Your task to perform on an android device: open app "Spotify" (install if not already installed) Image 0: 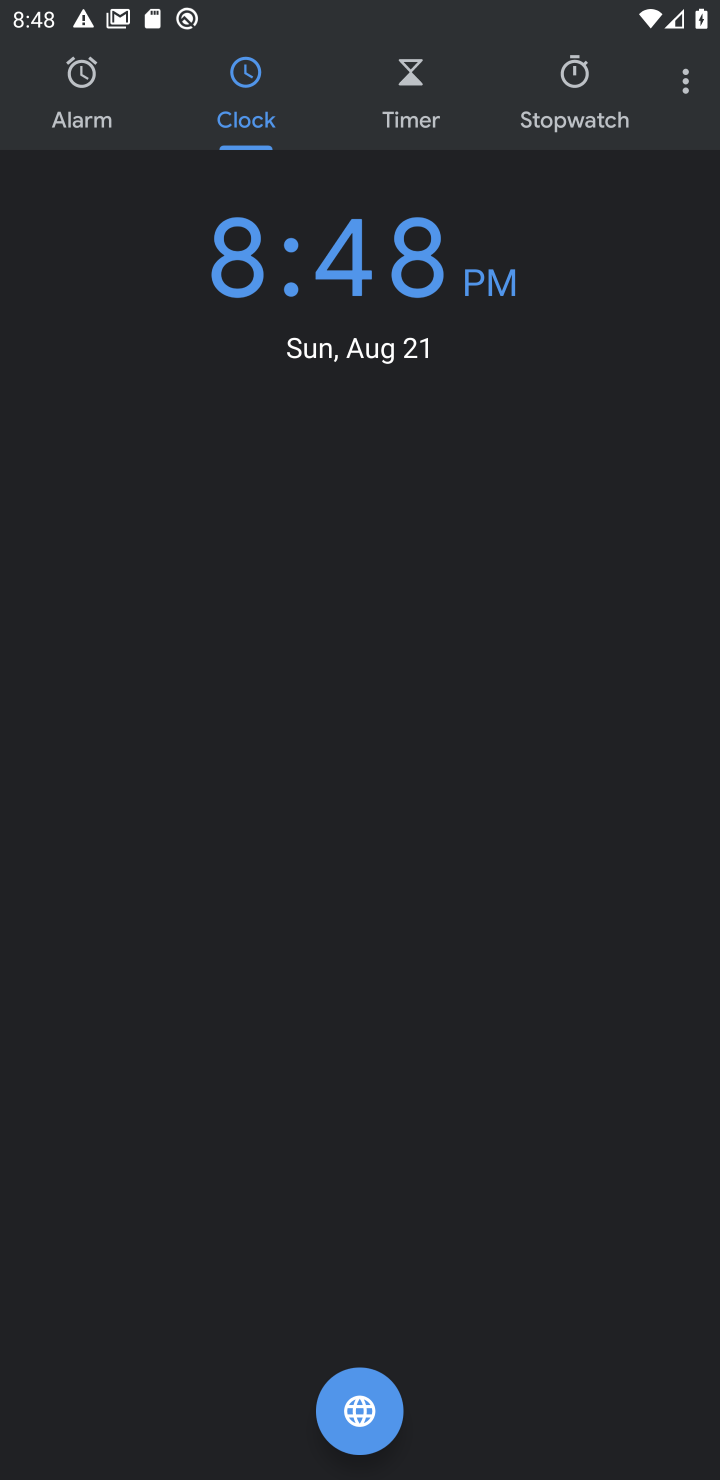
Step 0: press home button
Your task to perform on an android device: open app "Spotify" (install if not already installed) Image 1: 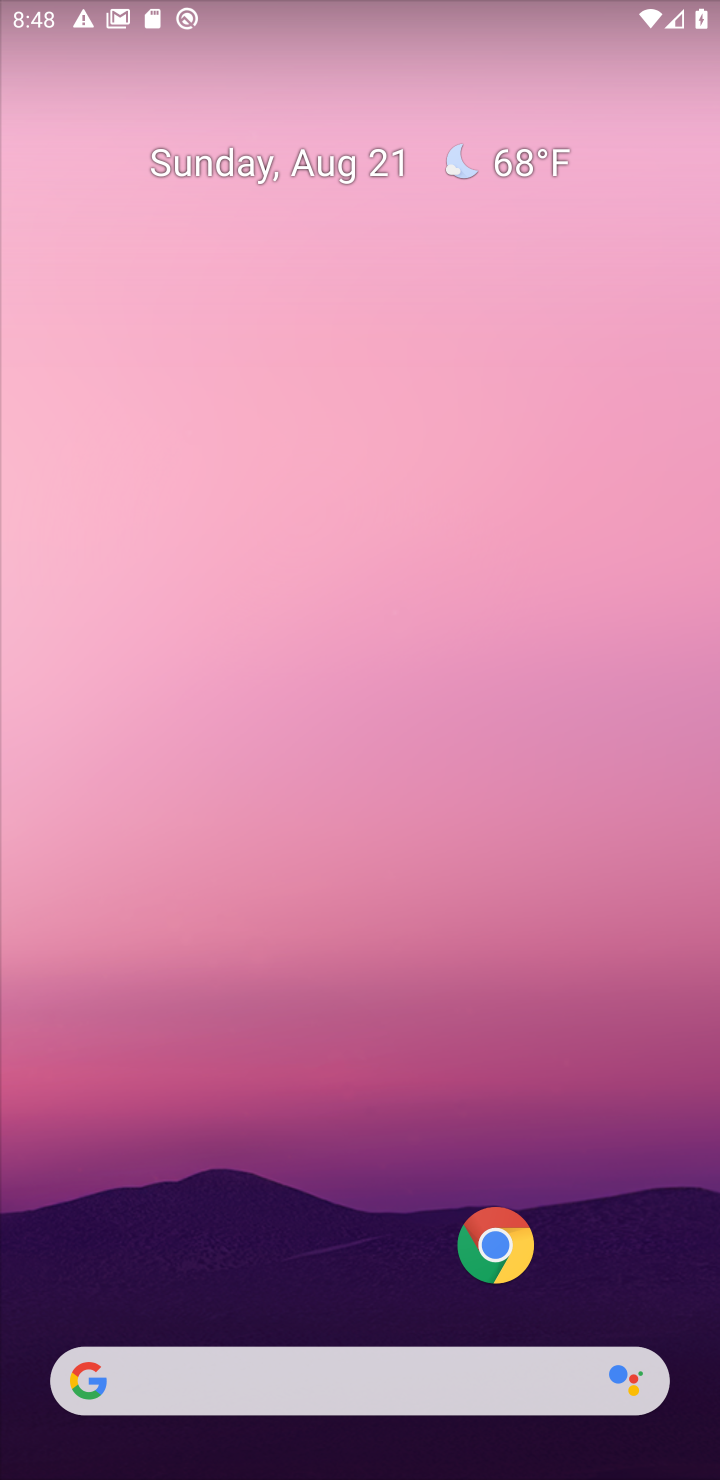
Step 1: drag from (338, 1303) to (365, 201)
Your task to perform on an android device: open app "Spotify" (install if not already installed) Image 2: 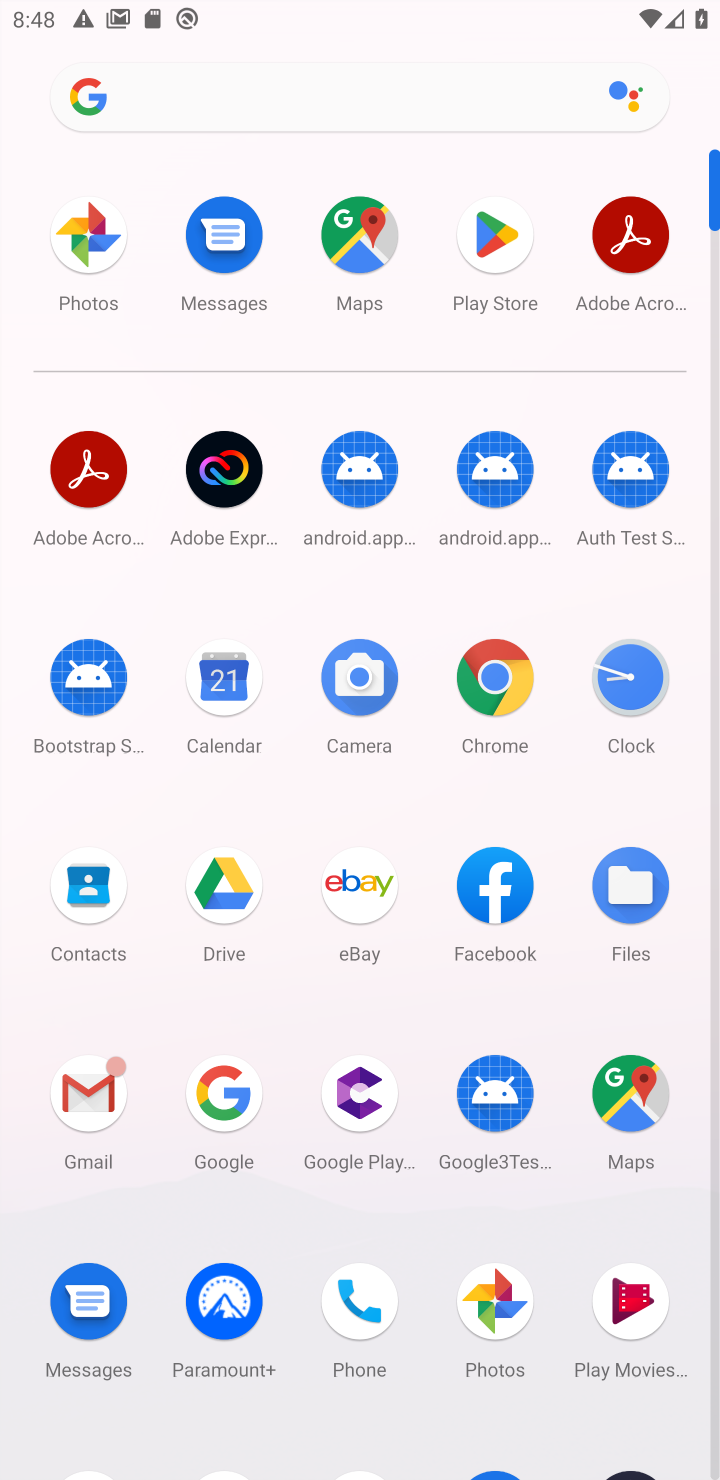
Step 2: click (480, 247)
Your task to perform on an android device: open app "Spotify" (install if not already installed) Image 3: 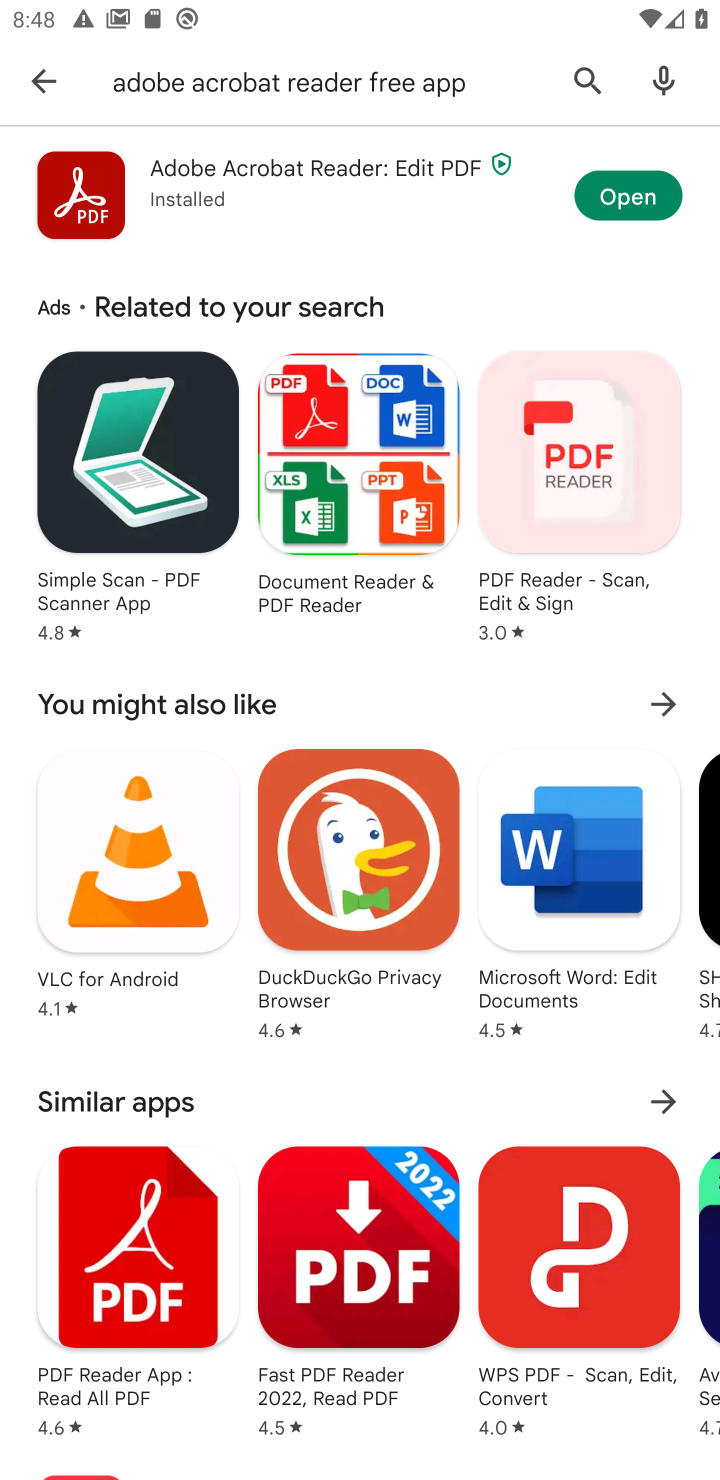
Step 3: click (30, 81)
Your task to perform on an android device: open app "Spotify" (install if not already installed) Image 4: 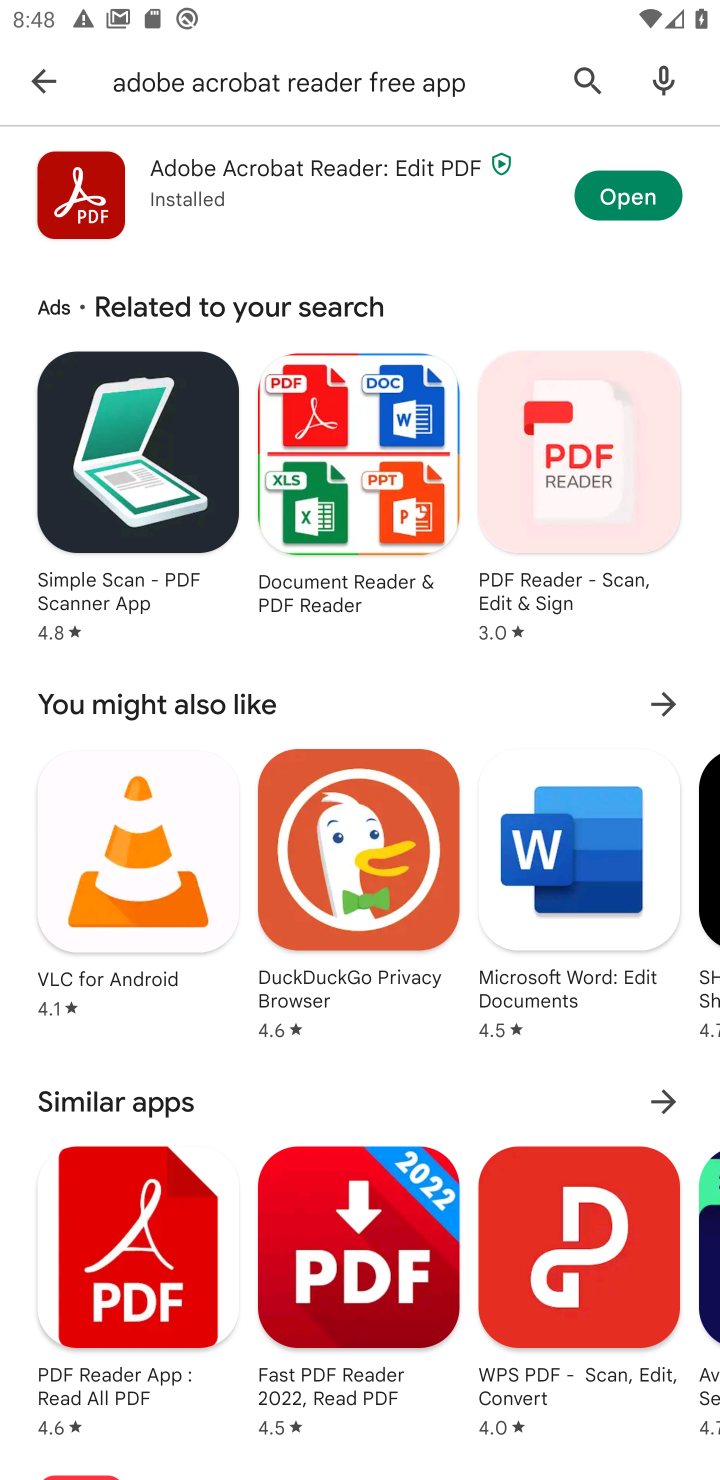
Step 4: click (18, 80)
Your task to perform on an android device: open app "Spotify" (install if not already installed) Image 5: 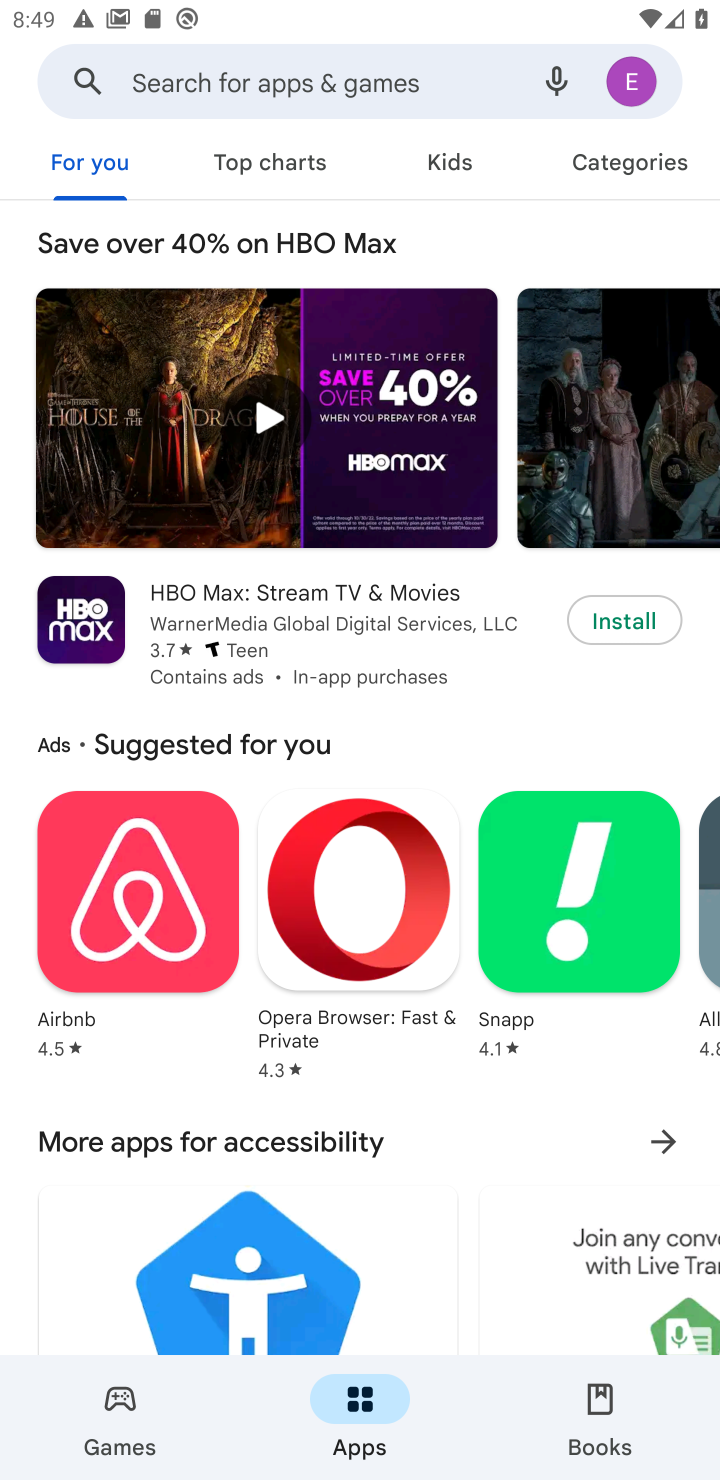
Step 5: click (150, 87)
Your task to perform on an android device: open app "Spotify" (install if not already installed) Image 6: 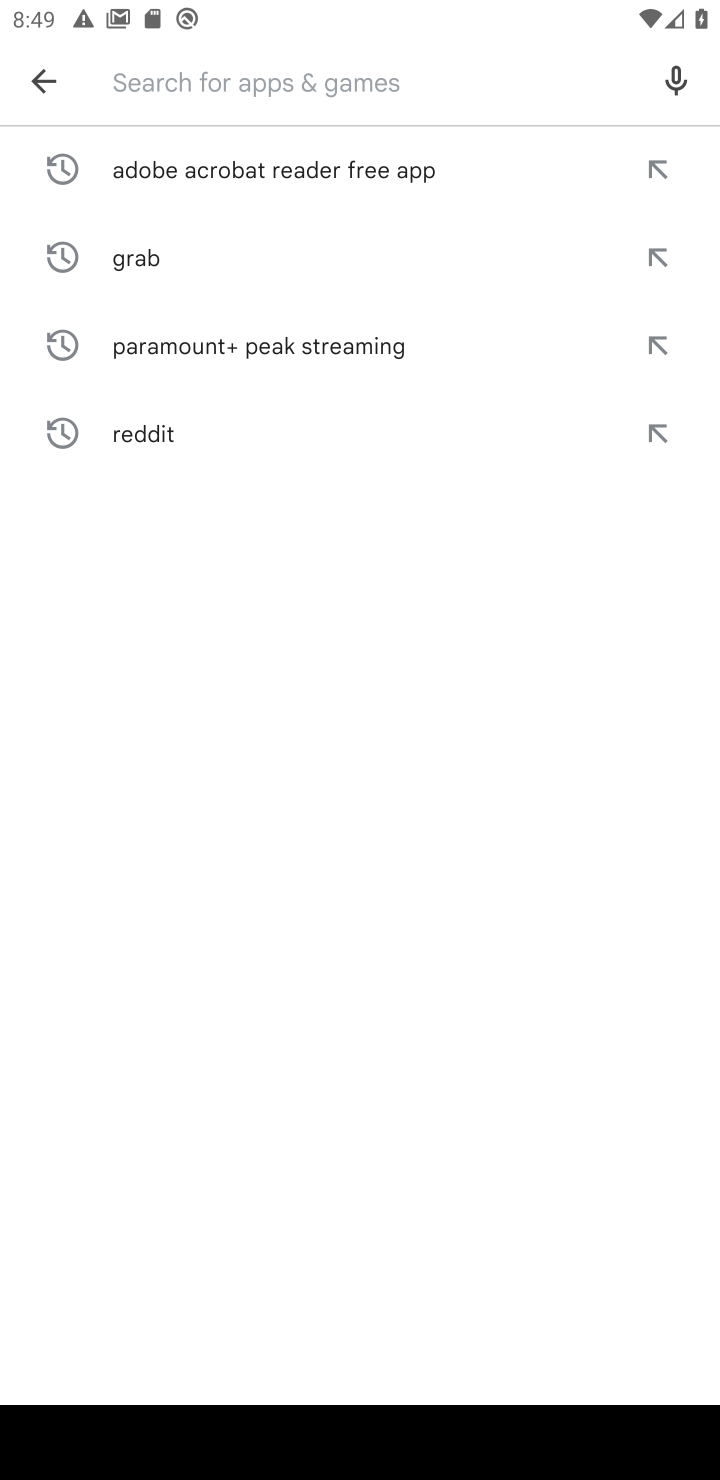
Step 6: type "Spotify"
Your task to perform on an android device: open app "Spotify" (install if not already installed) Image 7: 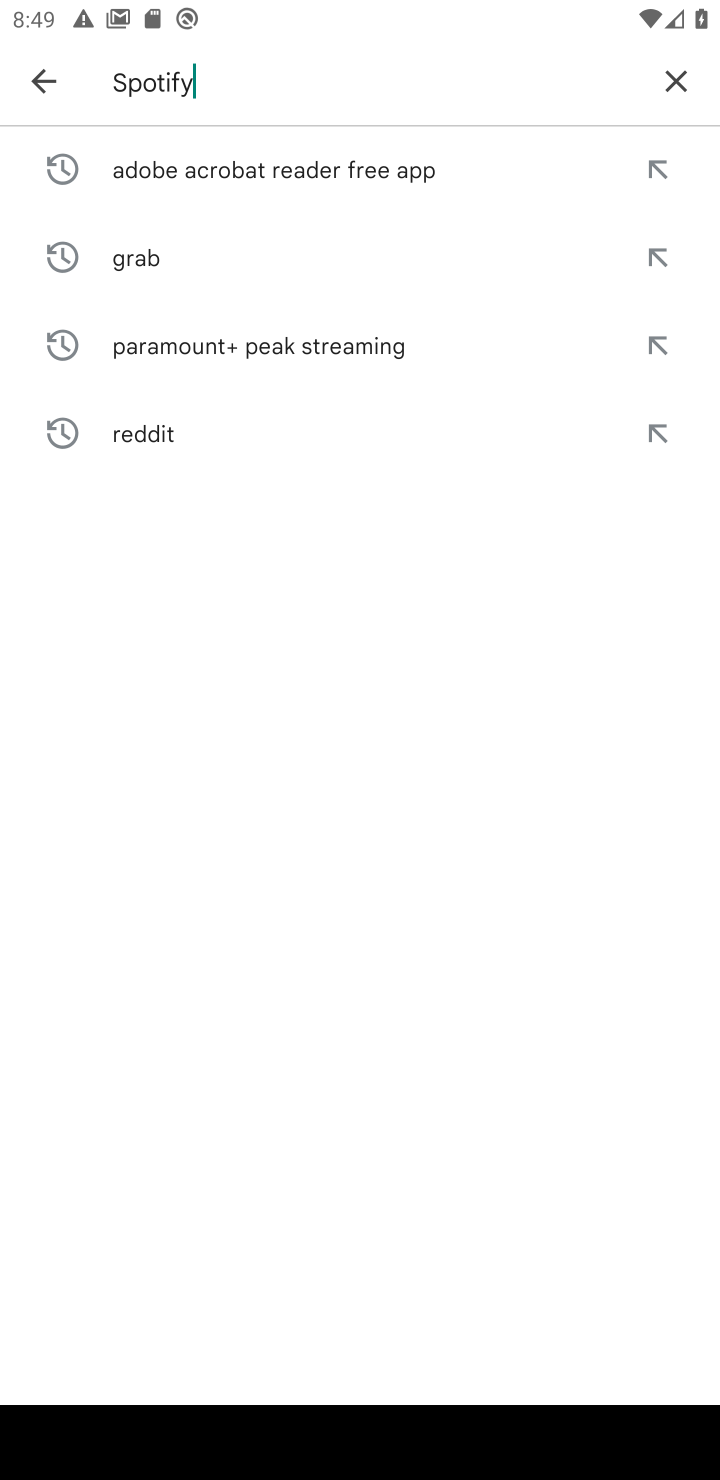
Step 7: type ""
Your task to perform on an android device: open app "Spotify" (install if not already installed) Image 8: 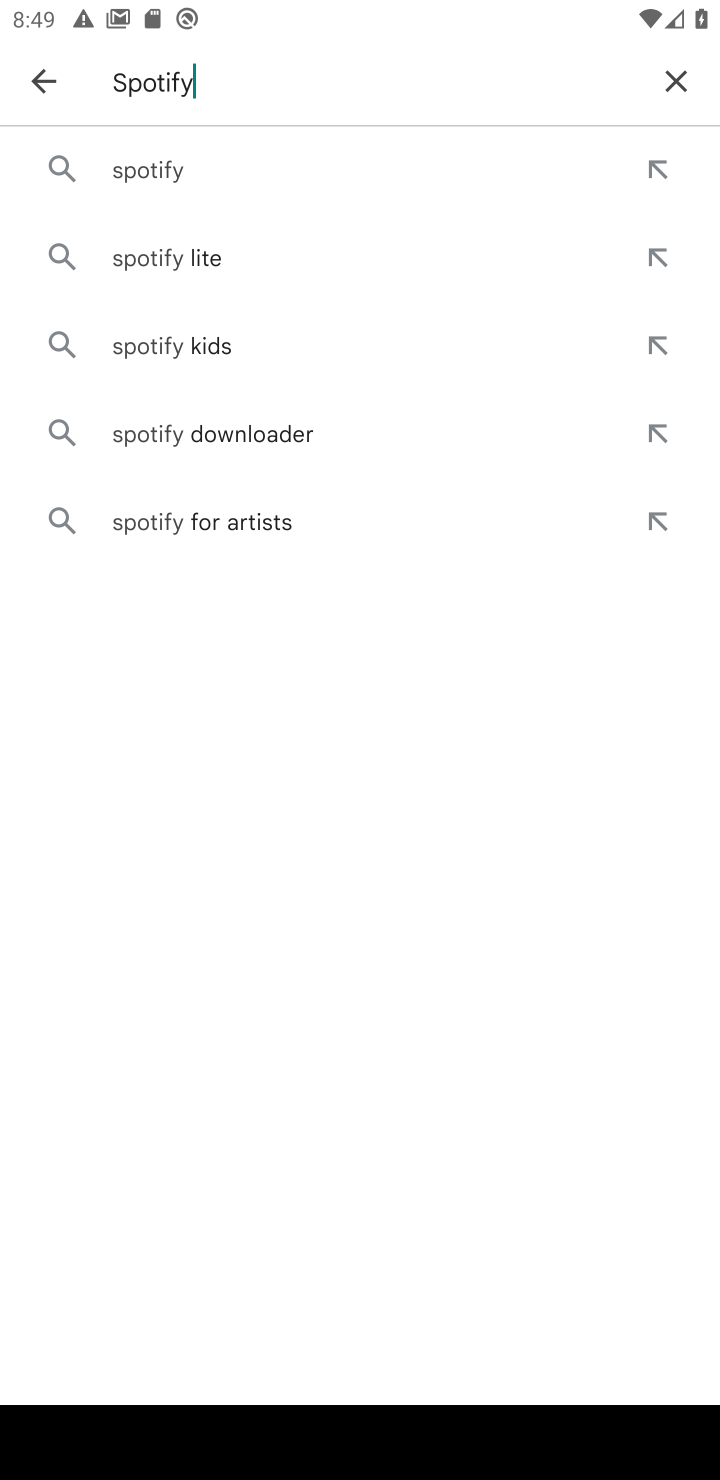
Step 8: click (152, 201)
Your task to perform on an android device: open app "Spotify" (install if not already installed) Image 9: 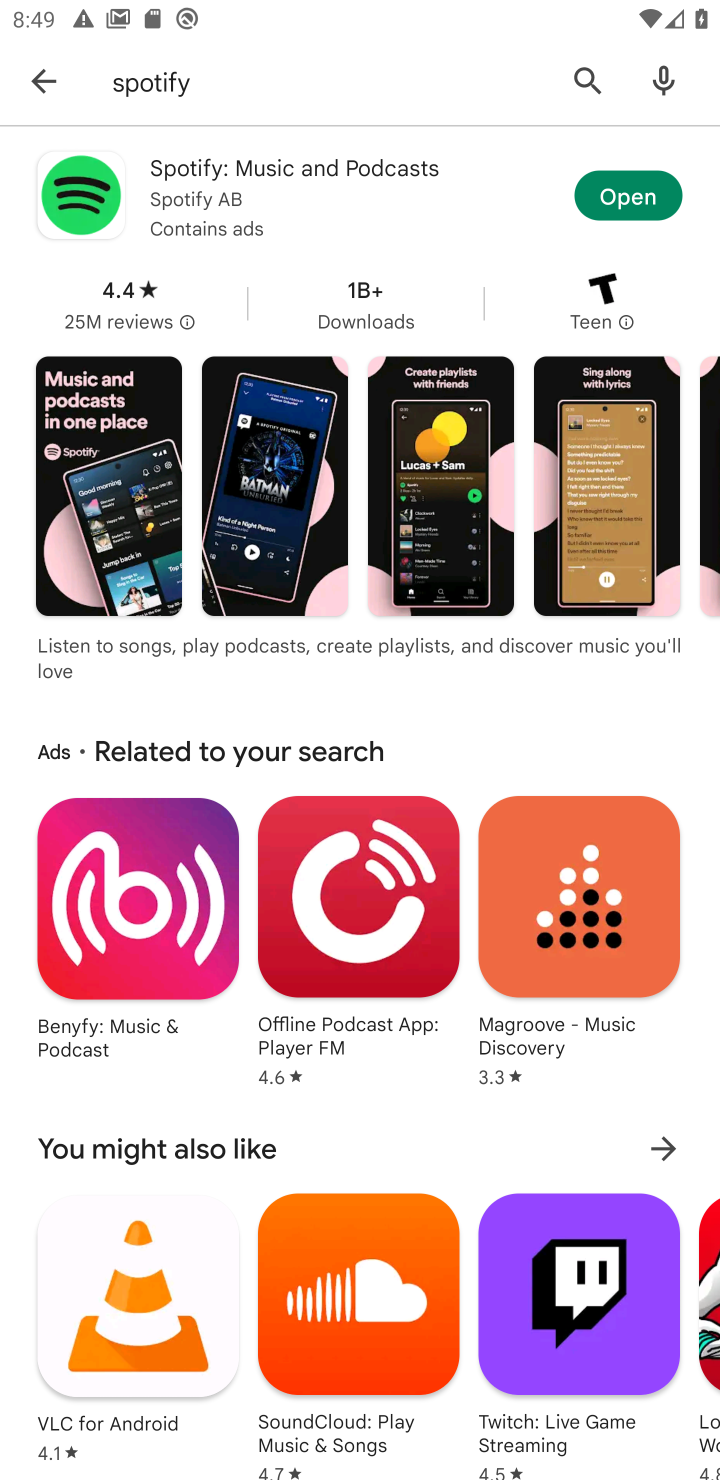
Step 9: click (665, 184)
Your task to perform on an android device: open app "Spotify" (install if not already installed) Image 10: 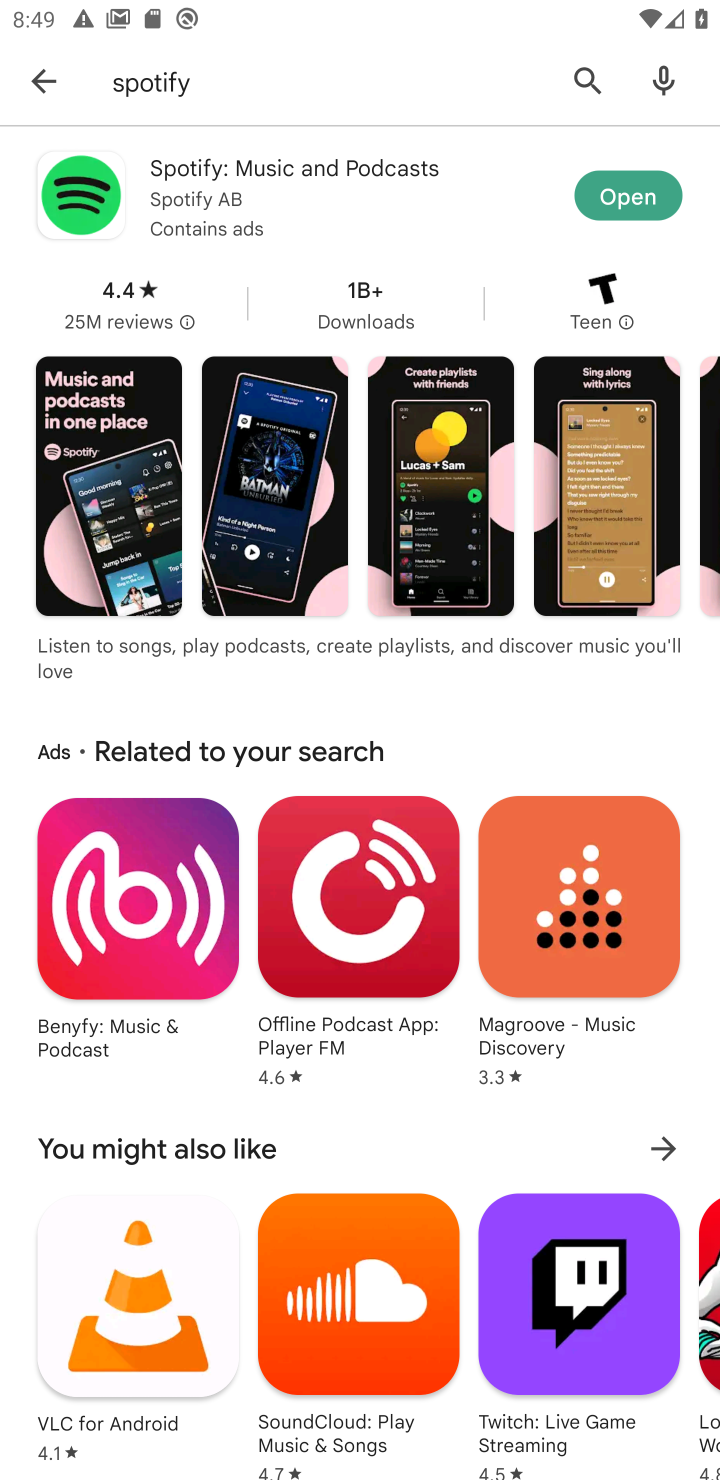
Step 10: task complete